Your task to perform on an android device: Go to calendar. Show me events next week Image 0: 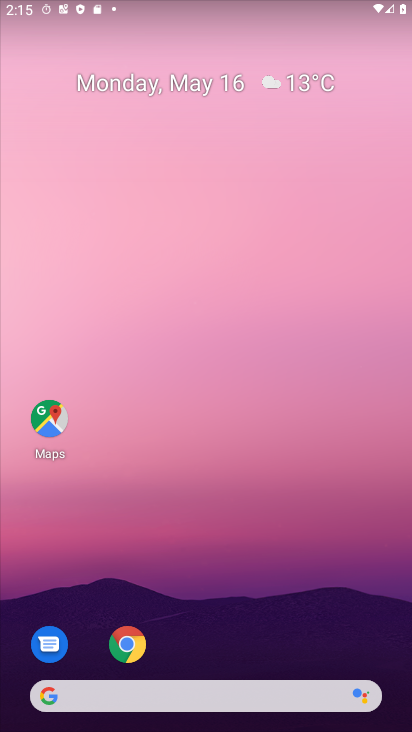
Step 0: drag from (160, 710) to (147, 211)
Your task to perform on an android device: Go to calendar. Show me events next week Image 1: 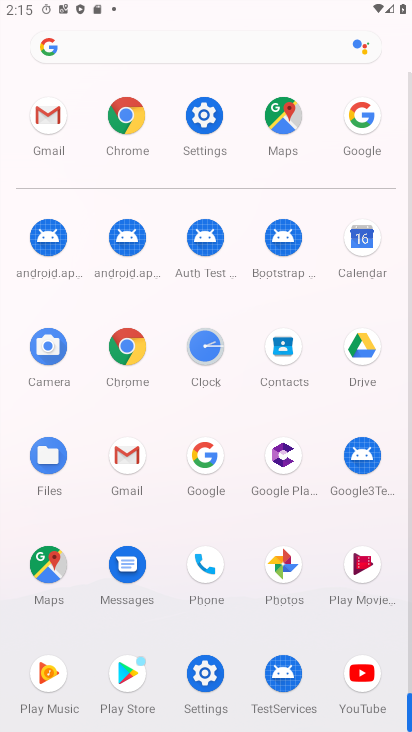
Step 1: click (370, 264)
Your task to perform on an android device: Go to calendar. Show me events next week Image 2: 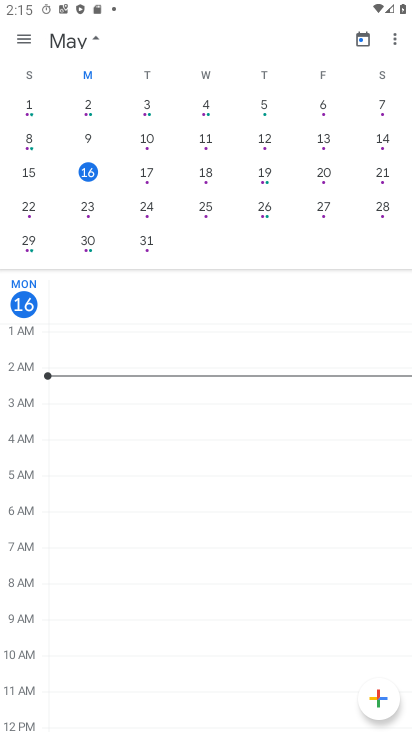
Step 2: click (81, 37)
Your task to perform on an android device: Go to calendar. Show me events next week Image 3: 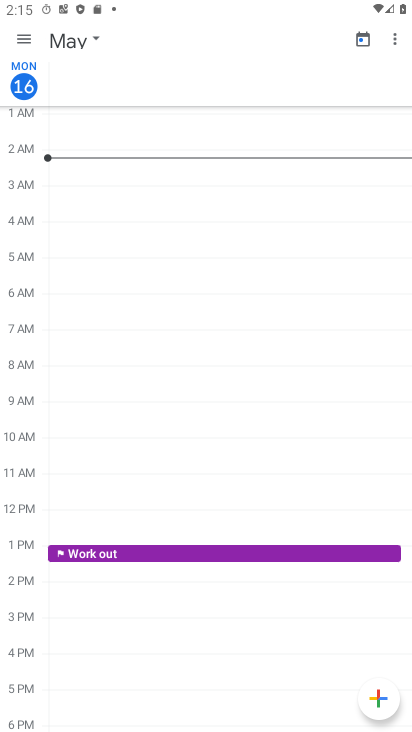
Step 3: click (56, 35)
Your task to perform on an android device: Go to calendar. Show me events next week Image 4: 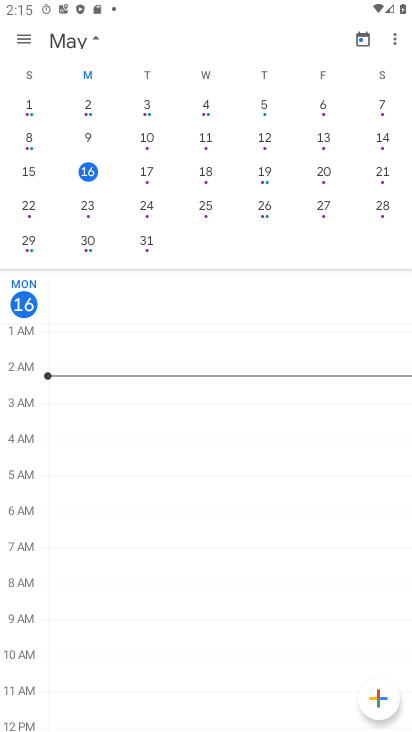
Step 4: drag from (348, 142) to (0, 146)
Your task to perform on an android device: Go to calendar. Show me events next week Image 5: 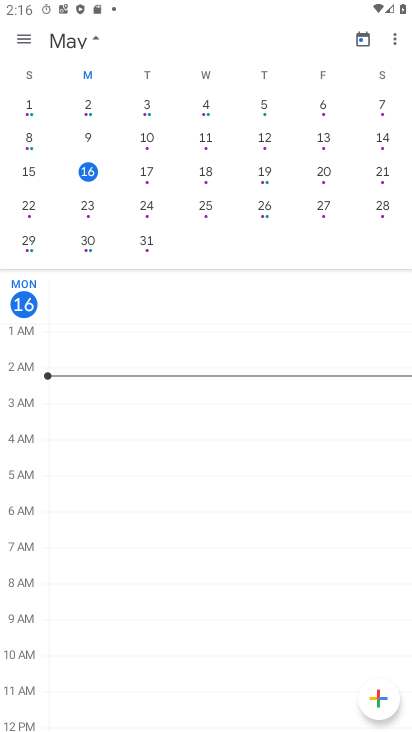
Step 5: click (33, 220)
Your task to perform on an android device: Go to calendar. Show me events next week Image 6: 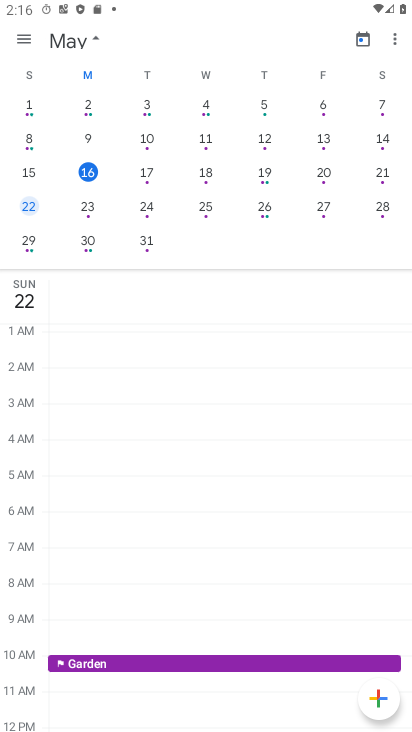
Step 6: task complete